Your task to perform on an android device: check battery use Image 0: 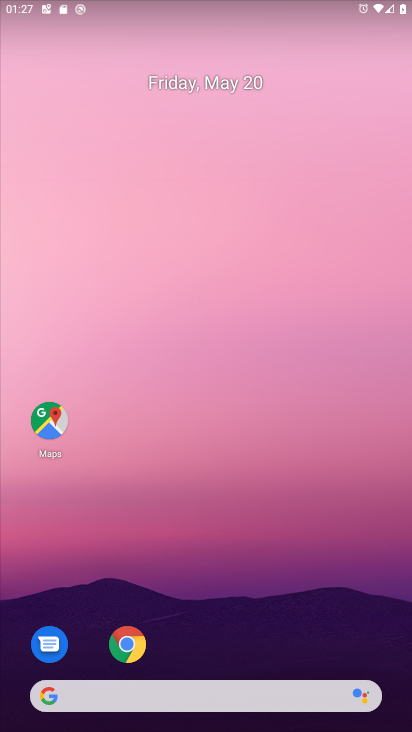
Step 0: drag from (189, 663) to (155, 336)
Your task to perform on an android device: check battery use Image 1: 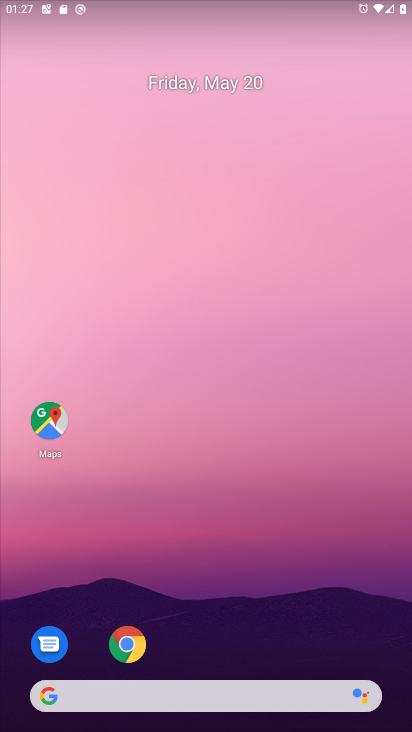
Step 1: drag from (181, 592) to (181, 354)
Your task to perform on an android device: check battery use Image 2: 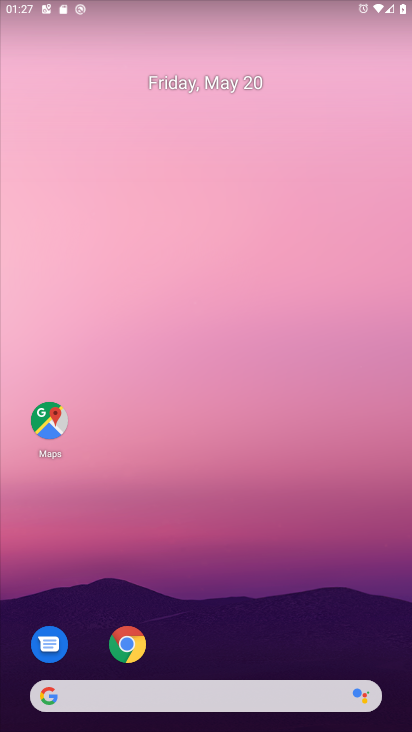
Step 2: drag from (183, 672) to (172, 298)
Your task to perform on an android device: check battery use Image 3: 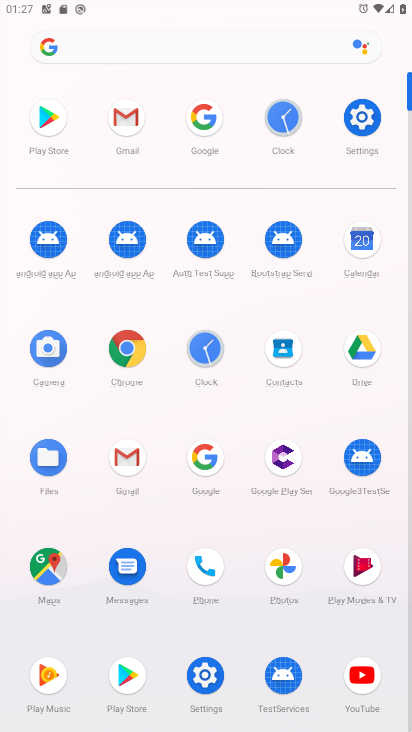
Step 3: click (353, 116)
Your task to perform on an android device: check battery use Image 4: 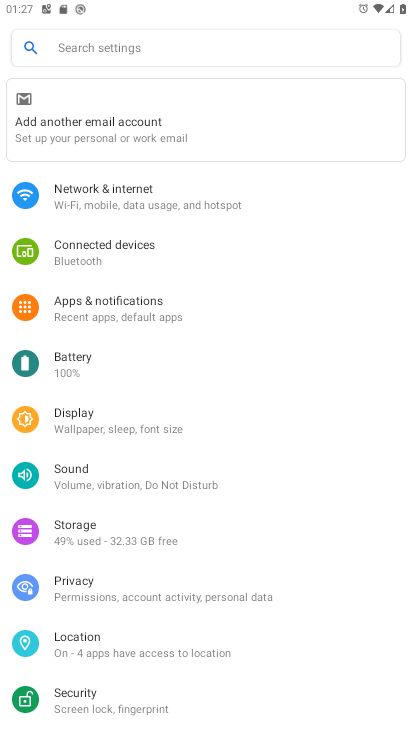
Step 4: click (65, 358)
Your task to perform on an android device: check battery use Image 5: 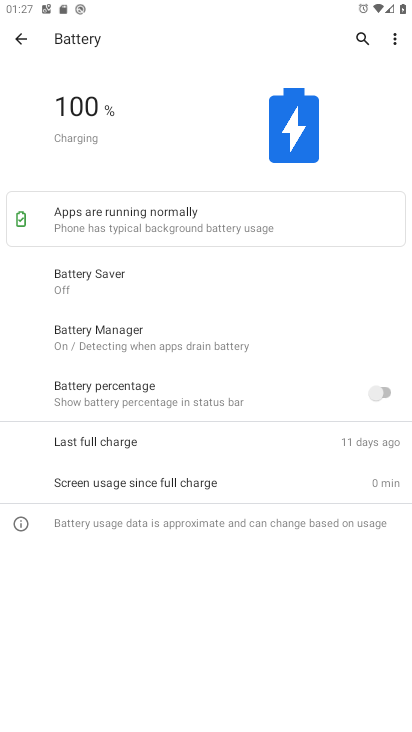
Step 5: task complete